Your task to perform on an android device: star an email in the gmail app Image 0: 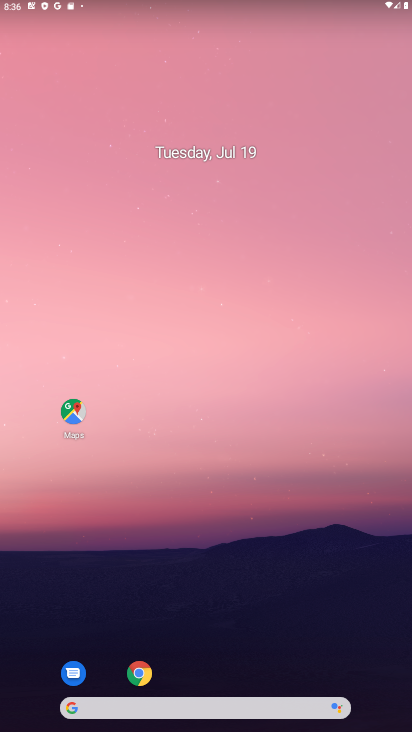
Step 0: drag from (259, 667) to (219, 103)
Your task to perform on an android device: star an email in the gmail app Image 1: 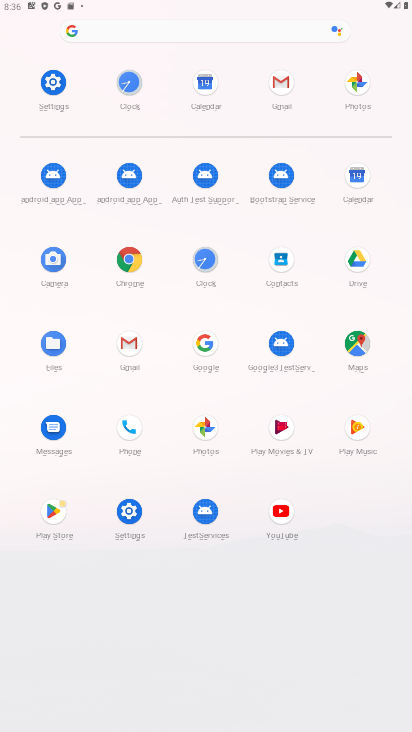
Step 1: click (288, 107)
Your task to perform on an android device: star an email in the gmail app Image 2: 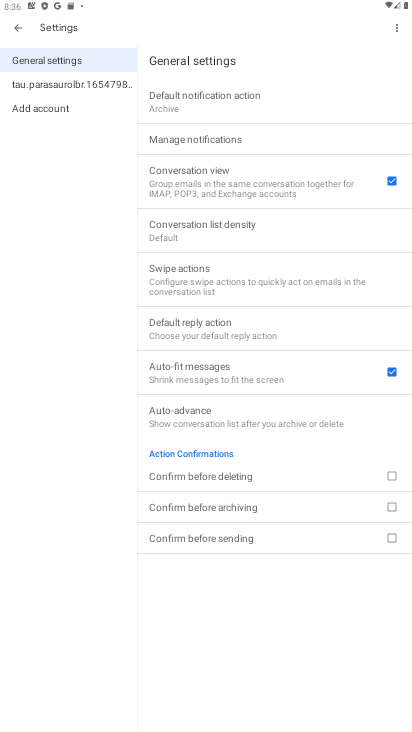
Step 2: click (19, 28)
Your task to perform on an android device: star an email in the gmail app Image 3: 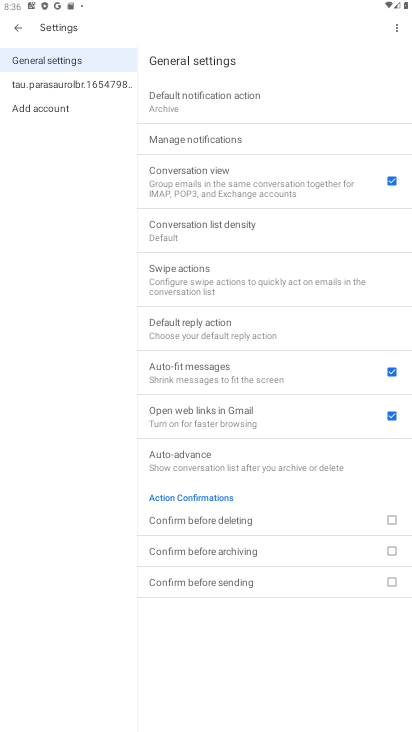
Step 3: click (39, 82)
Your task to perform on an android device: star an email in the gmail app Image 4: 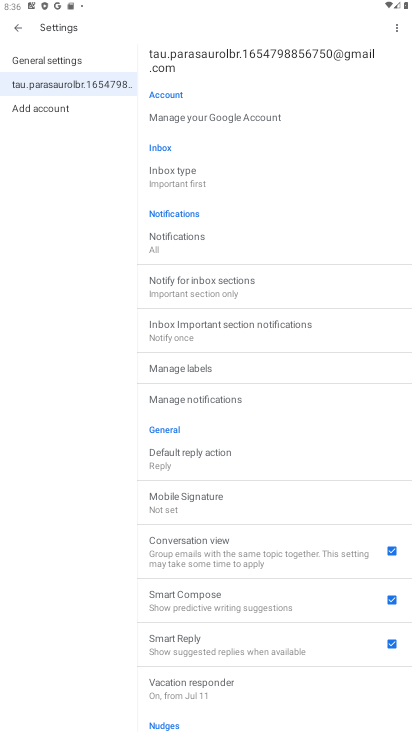
Step 4: click (14, 32)
Your task to perform on an android device: star an email in the gmail app Image 5: 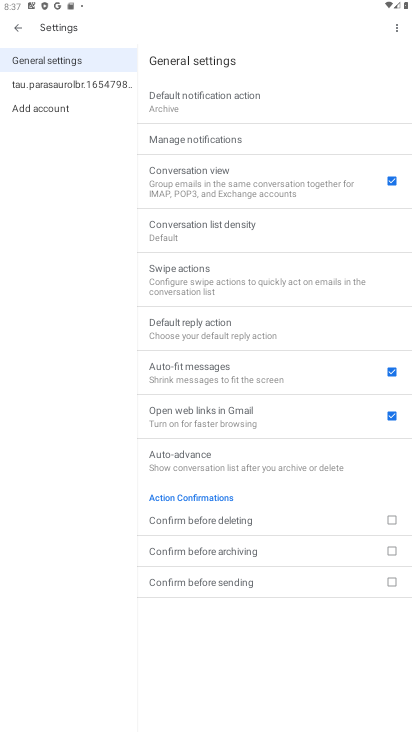
Step 5: task complete